Your task to perform on an android device: turn on location history Image 0: 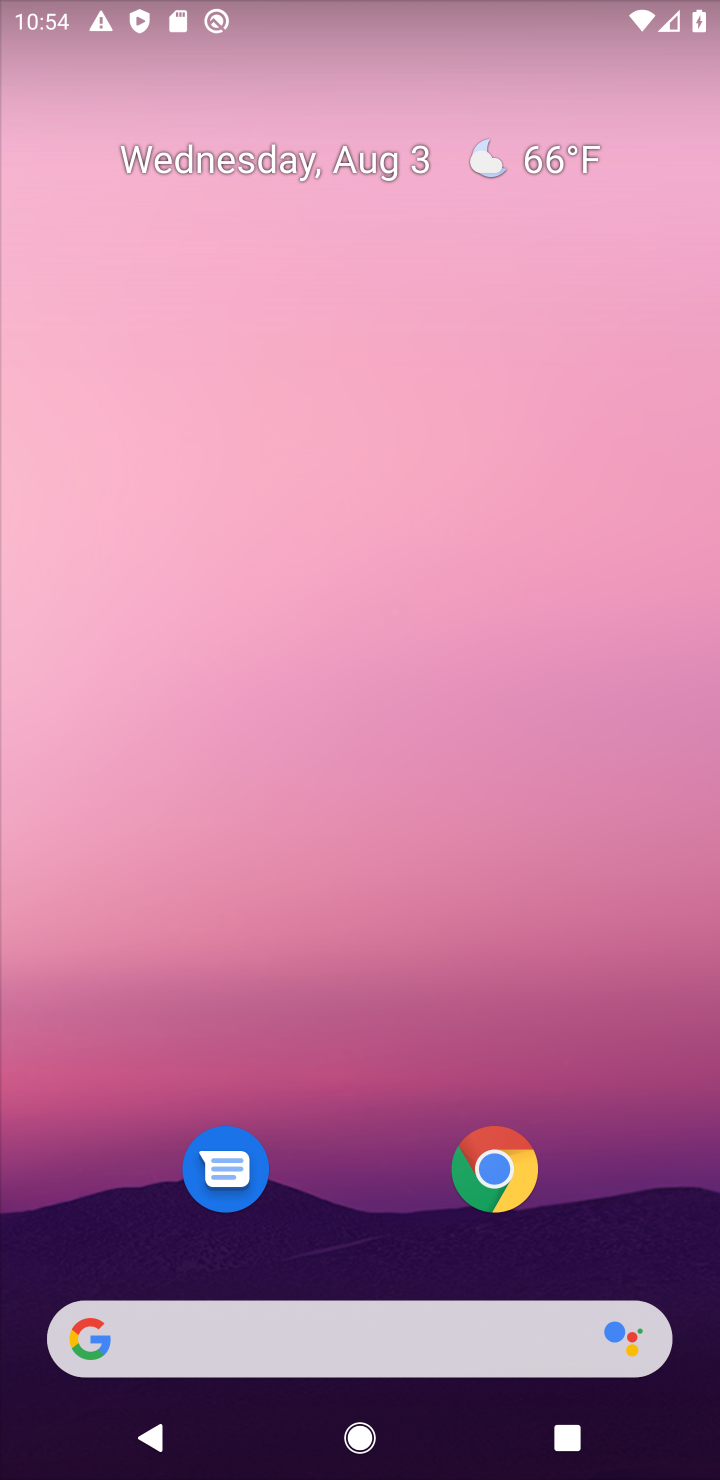
Step 0: drag from (378, 1226) to (313, 43)
Your task to perform on an android device: turn on location history Image 1: 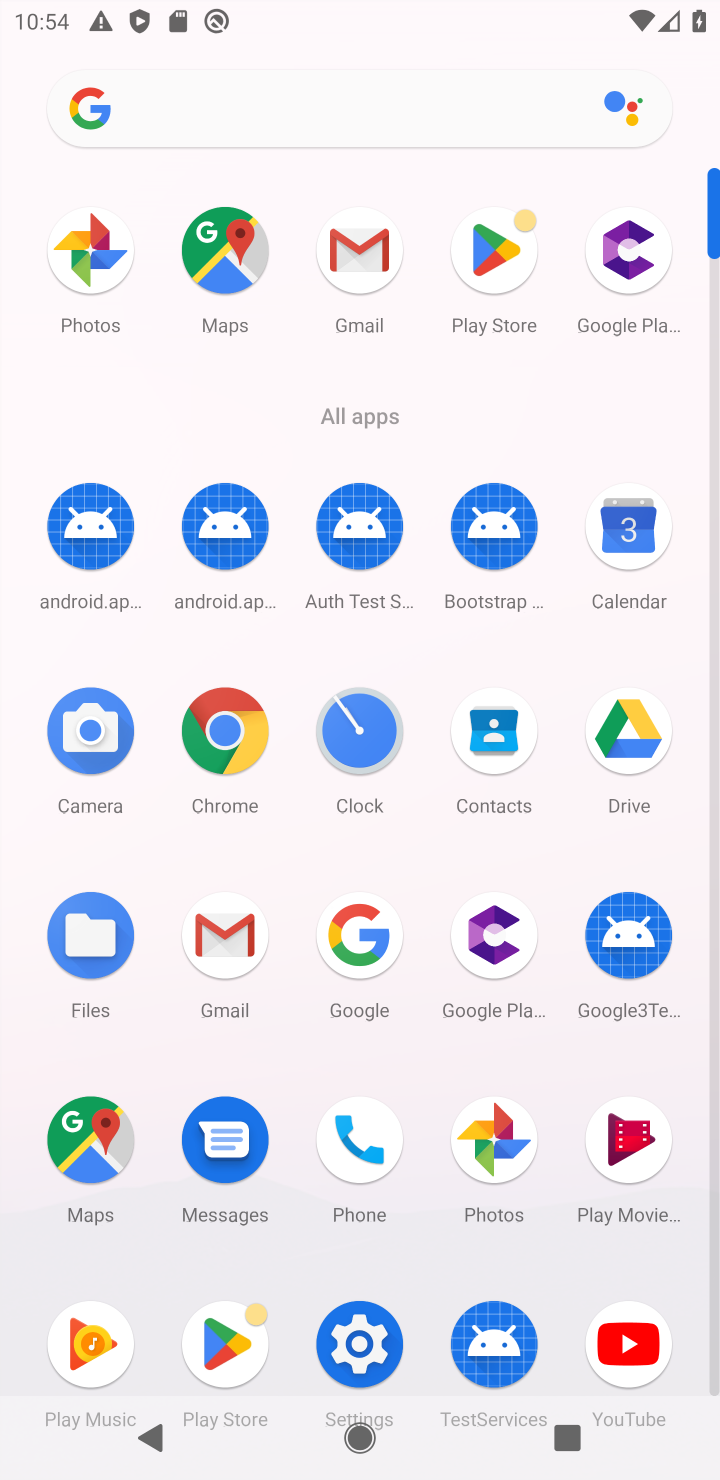
Step 1: click (226, 276)
Your task to perform on an android device: turn on location history Image 2: 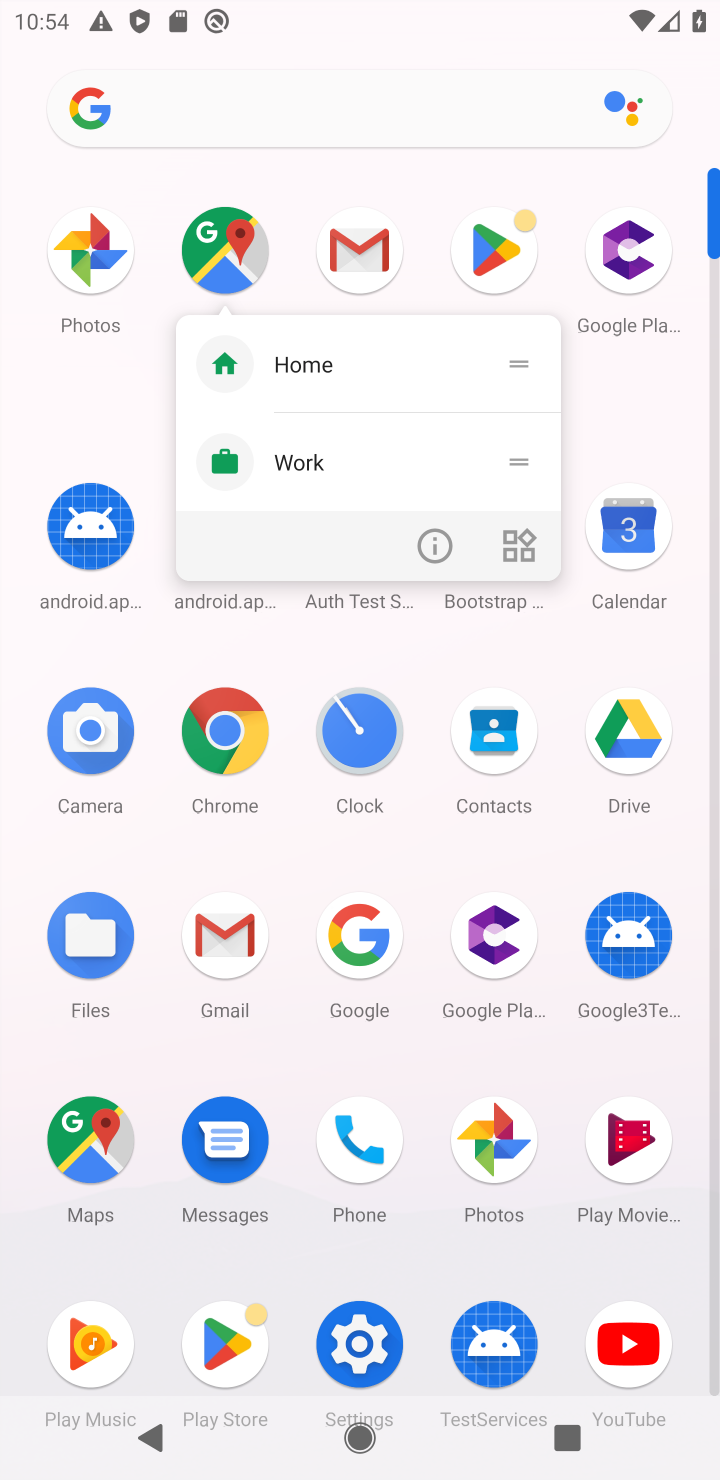
Step 2: click (228, 255)
Your task to perform on an android device: turn on location history Image 3: 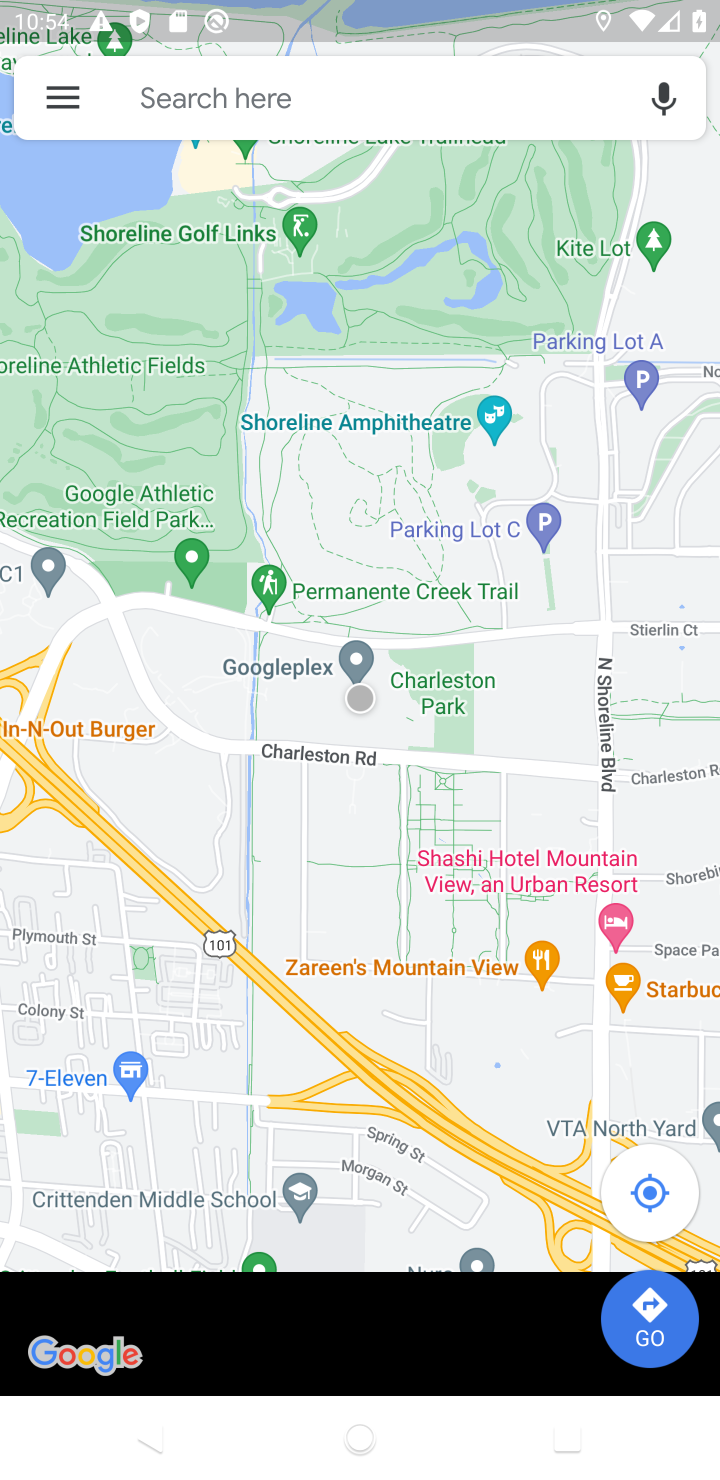
Step 3: click (64, 106)
Your task to perform on an android device: turn on location history Image 4: 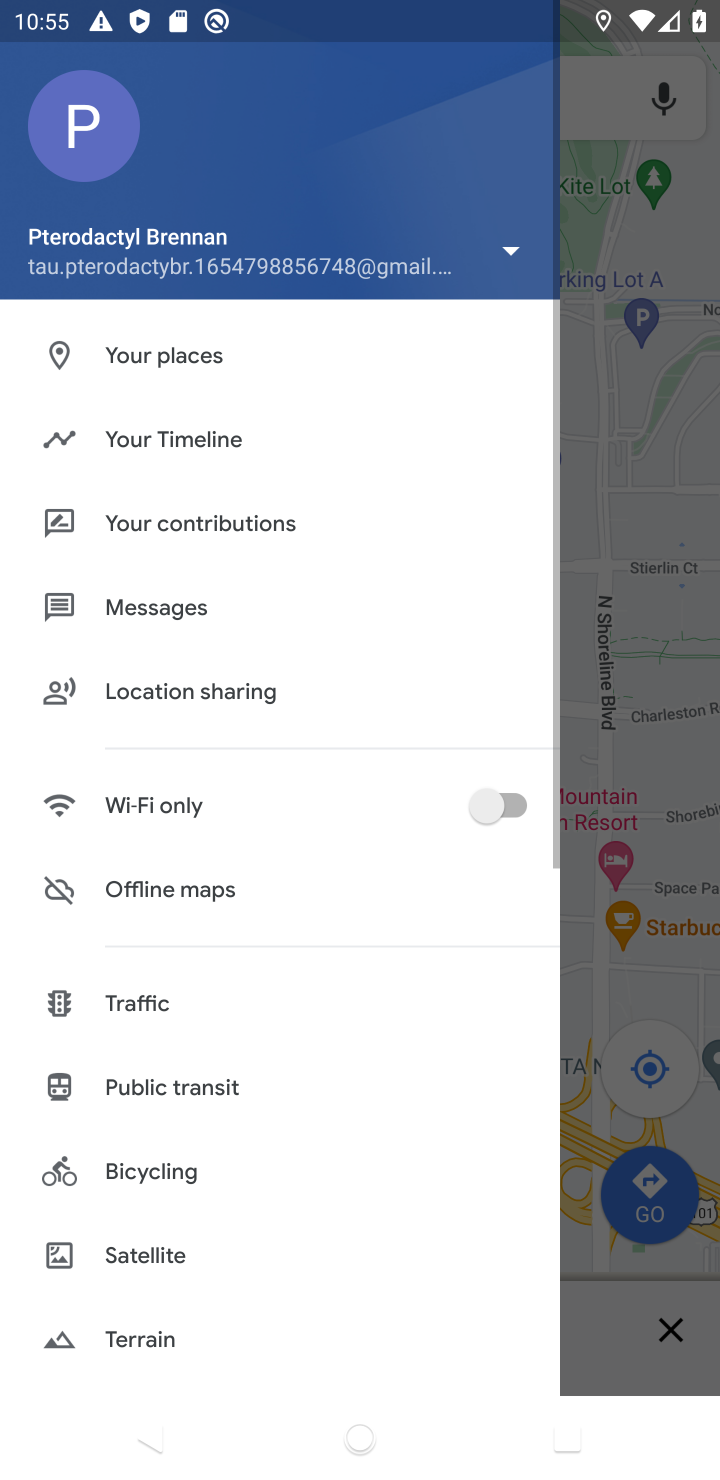
Step 4: click (147, 440)
Your task to perform on an android device: turn on location history Image 5: 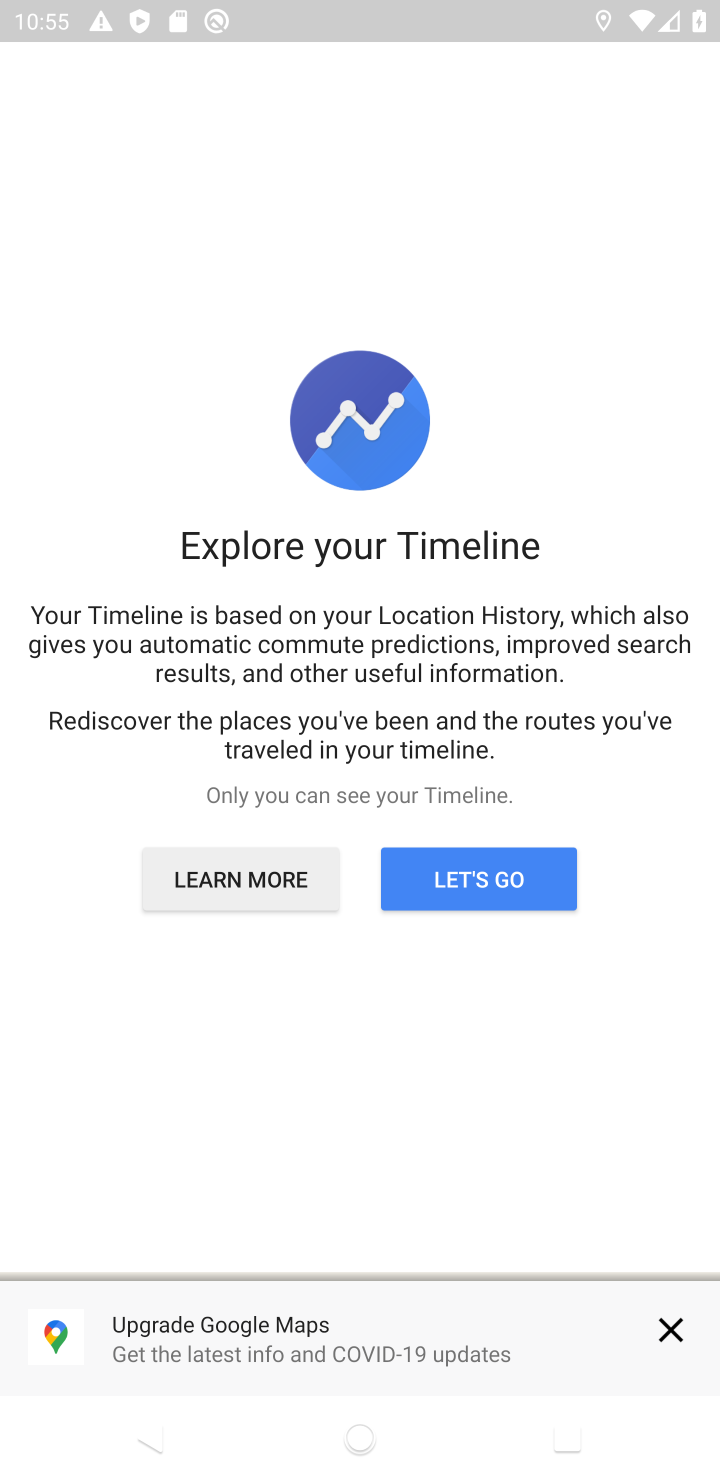
Step 5: click (479, 871)
Your task to perform on an android device: turn on location history Image 6: 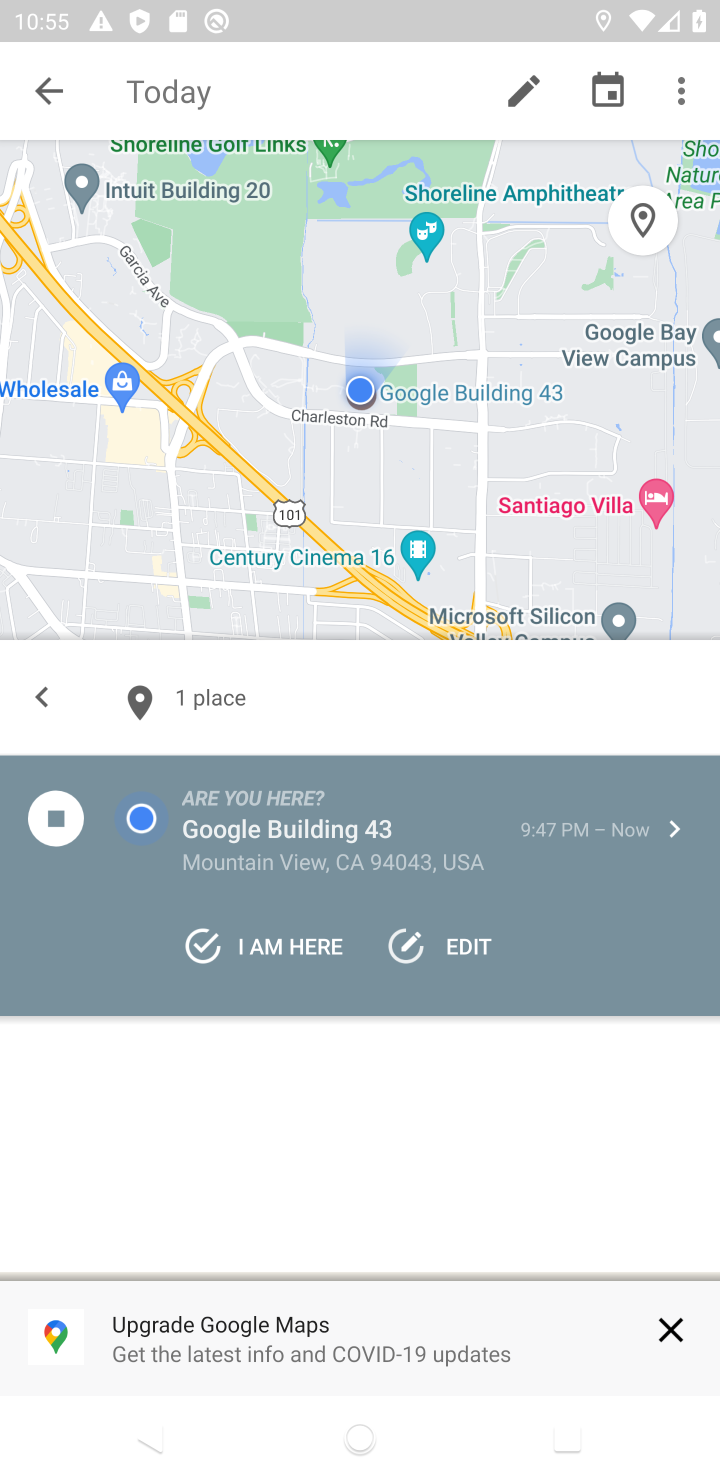
Step 6: click (682, 85)
Your task to perform on an android device: turn on location history Image 7: 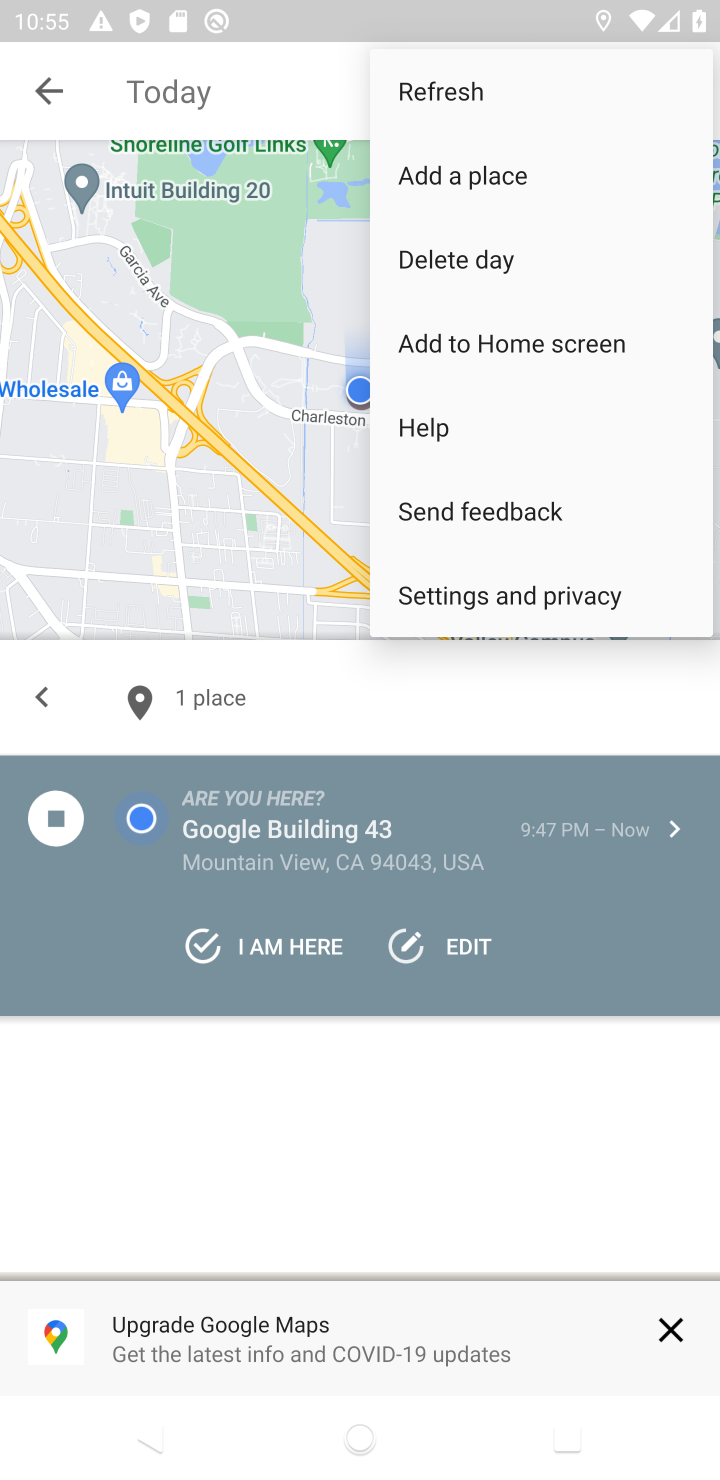
Step 7: click (451, 599)
Your task to perform on an android device: turn on location history Image 8: 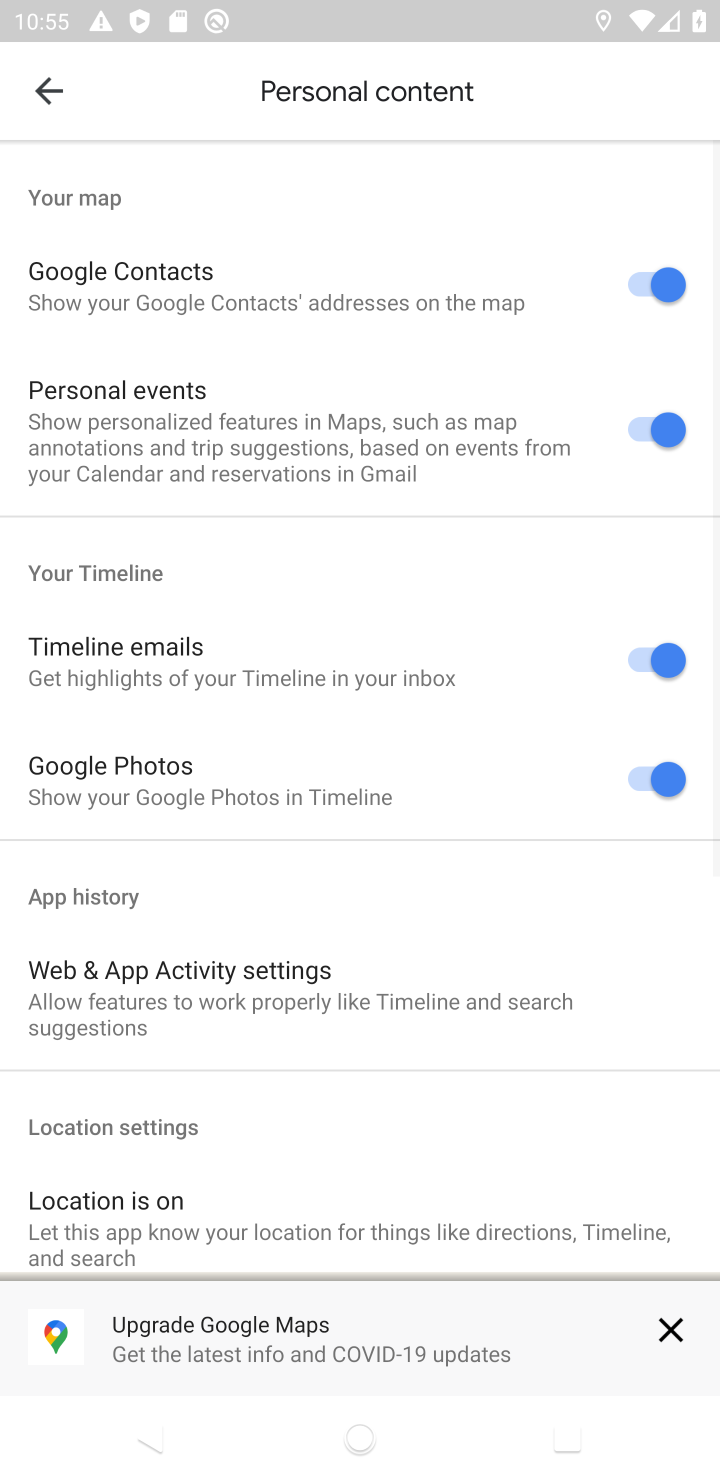
Step 8: drag from (213, 967) to (208, 360)
Your task to perform on an android device: turn on location history Image 9: 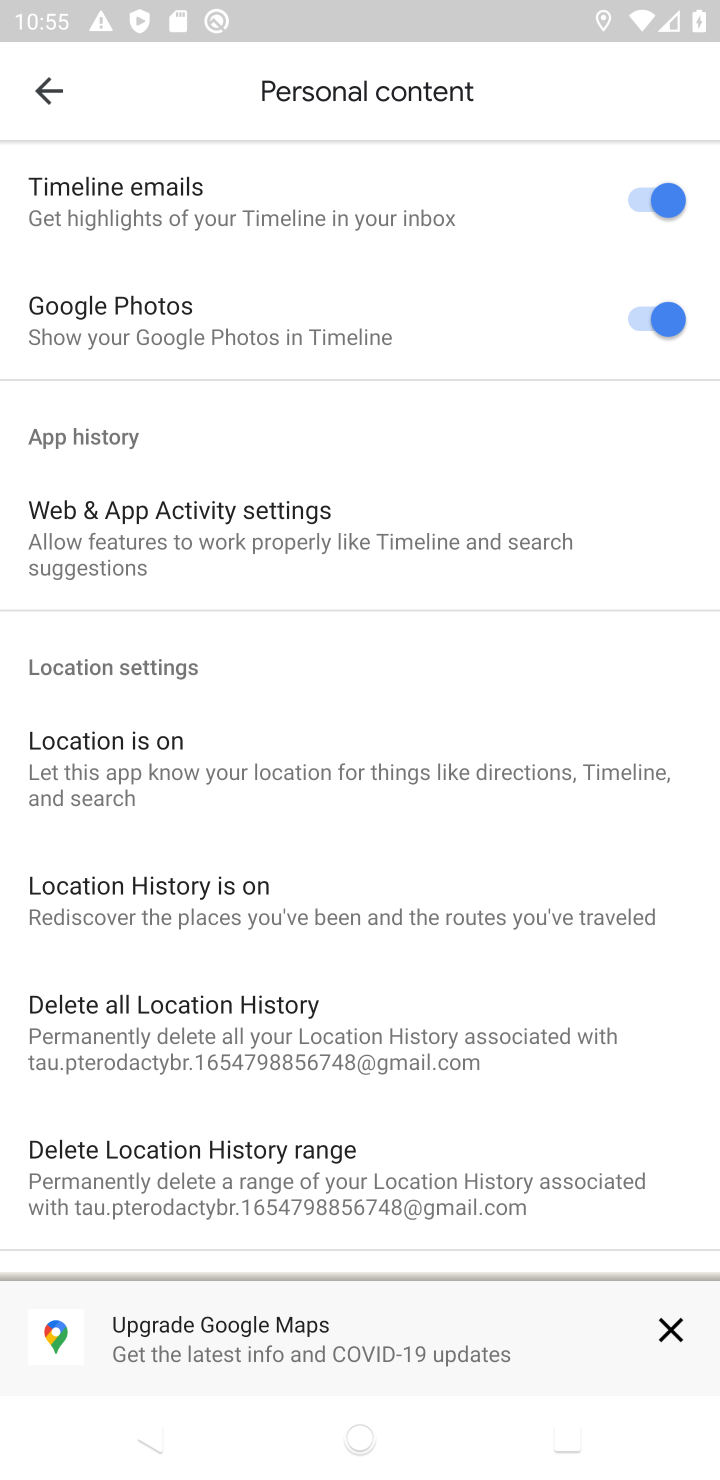
Step 9: click (173, 914)
Your task to perform on an android device: turn on location history Image 10: 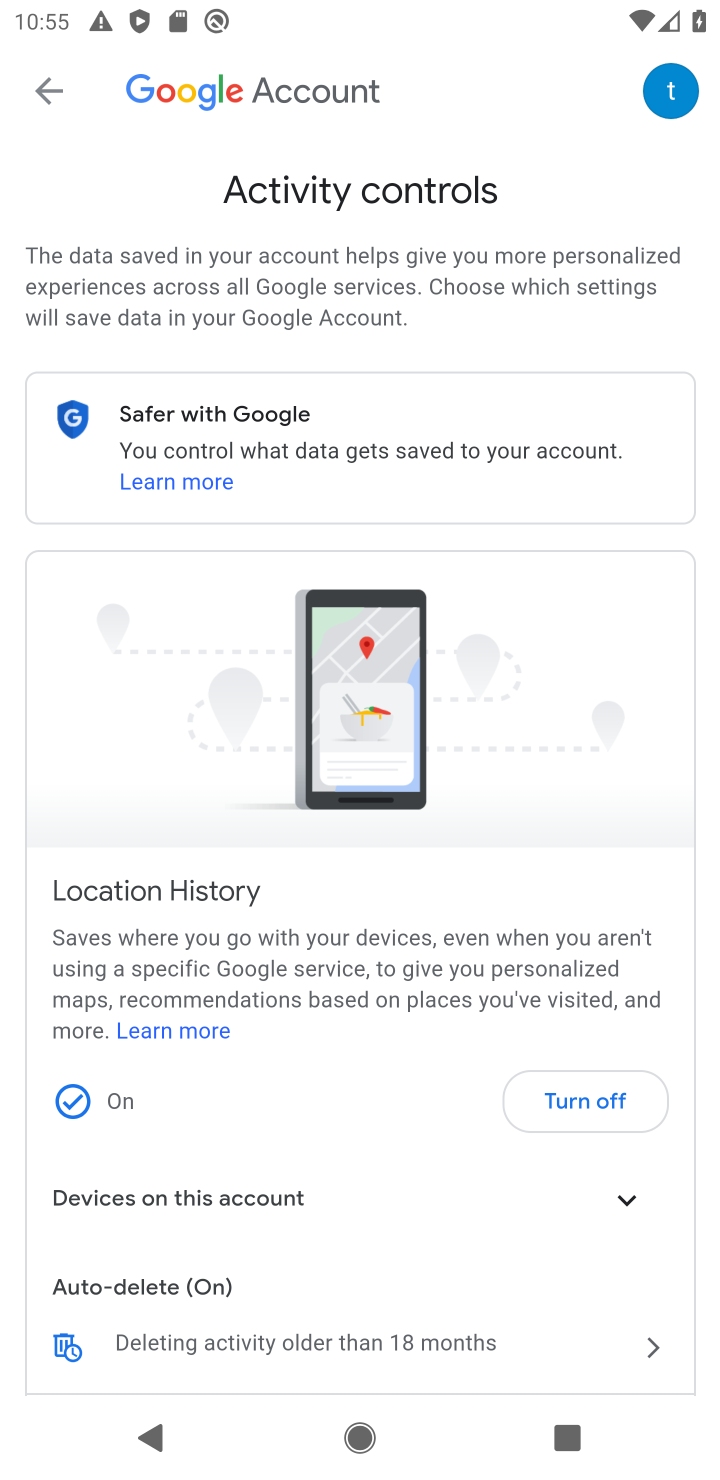
Step 10: task complete